Your task to perform on an android device: Add razer naga to the cart on newegg.com Image 0: 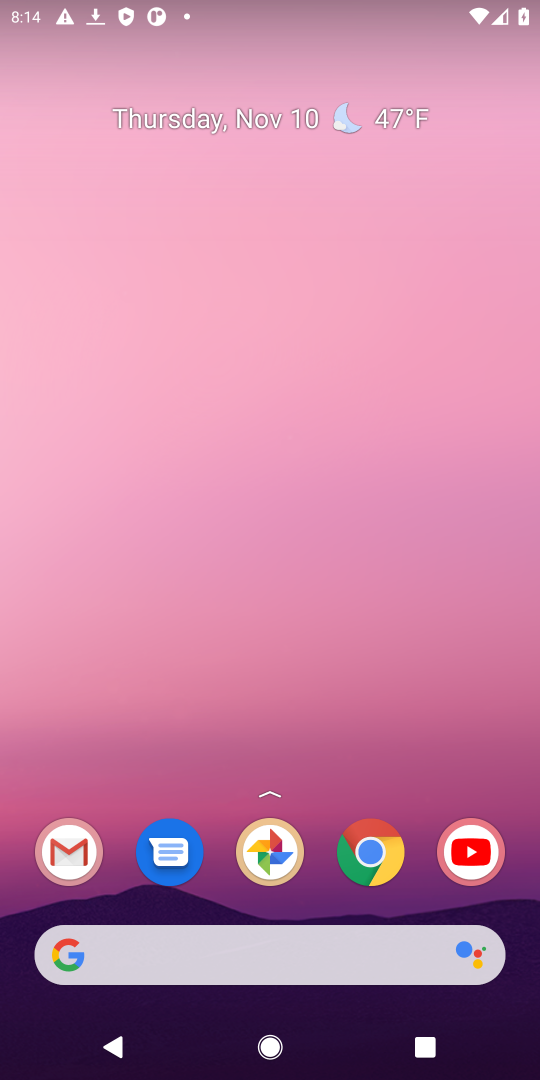
Step 0: click (353, 866)
Your task to perform on an android device: Add razer naga to the cart on newegg.com Image 1: 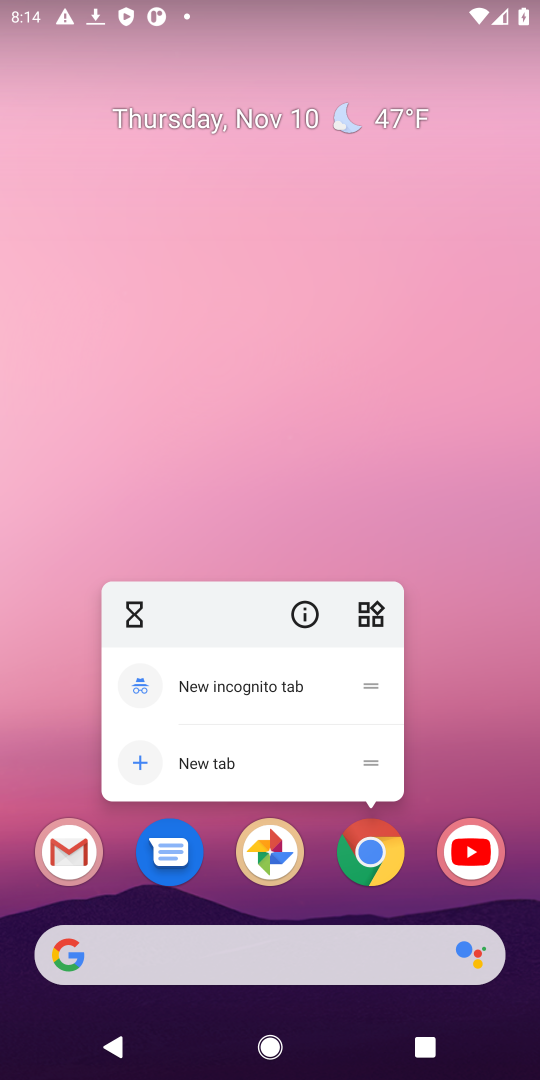
Step 1: click (353, 866)
Your task to perform on an android device: Add razer naga to the cart on newegg.com Image 2: 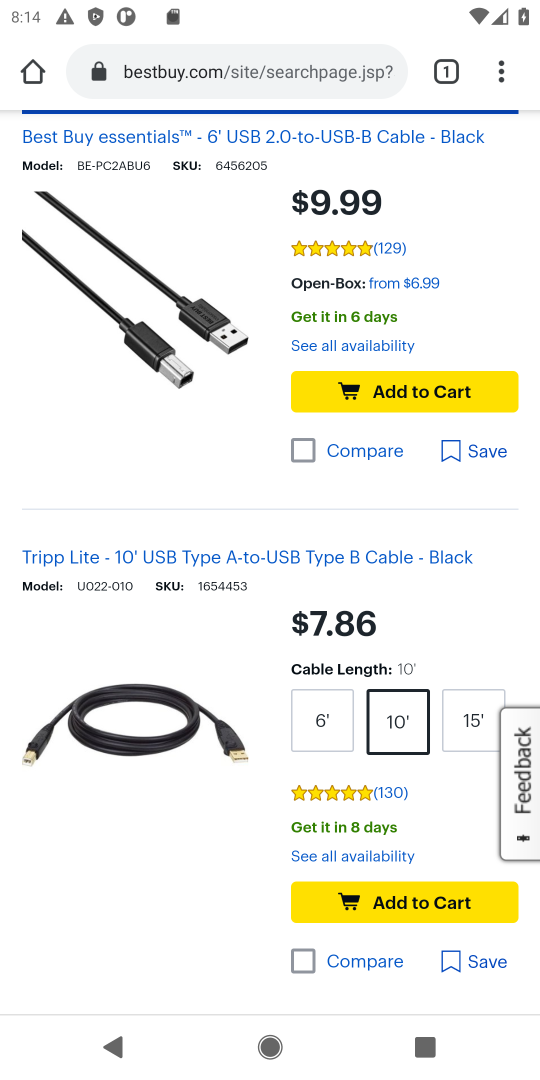
Step 2: click (276, 66)
Your task to perform on an android device: Add razer naga to the cart on newegg.com Image 3: 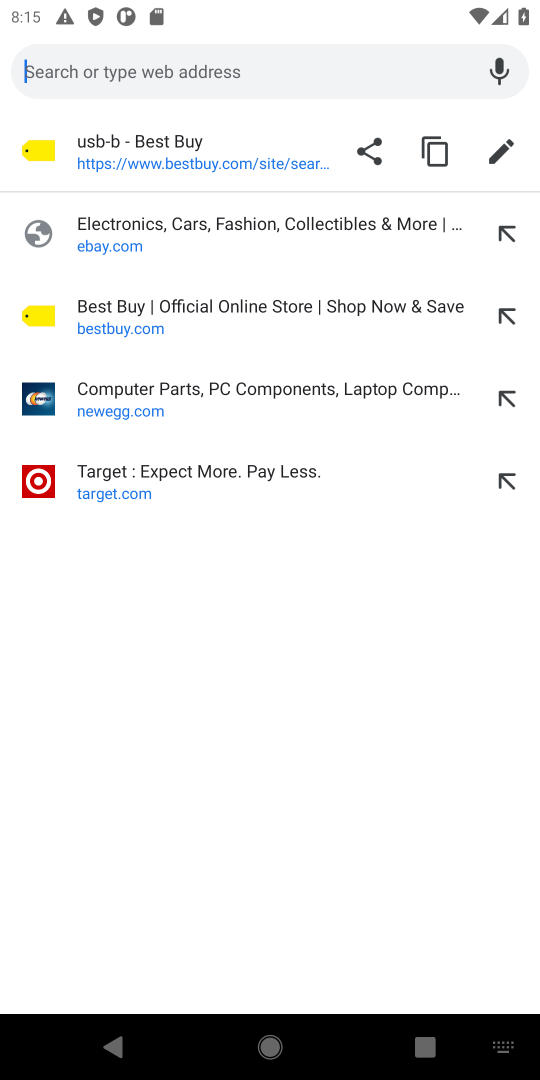
Step 3: type "newegg.com"
Your task to perform on an android device: Add razer naga to the cart on newegg.com Image 4: 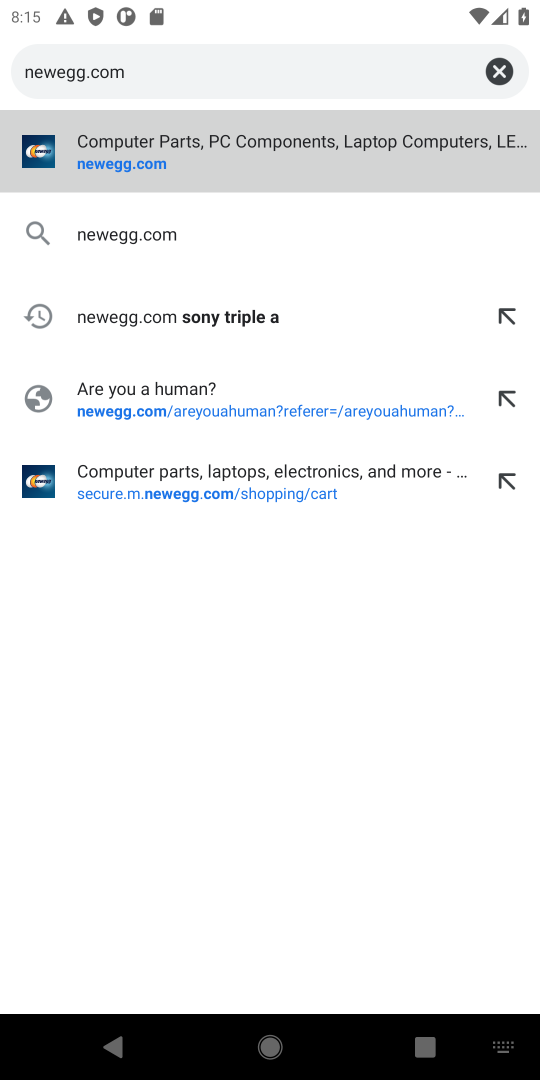
Step 4: press enter
Your task to perform on an android device: Add razer naga to the cart on newegg.com Image 5: 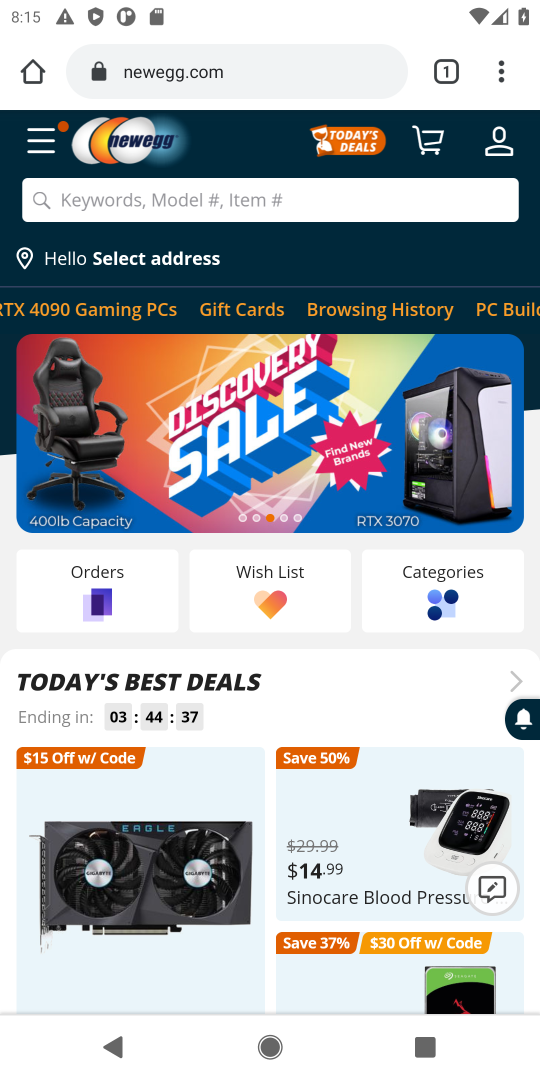
Step 5: click (287, 190)
Your task to perform on an android device: Add razer naga to the cart on newegg.com Image 6: 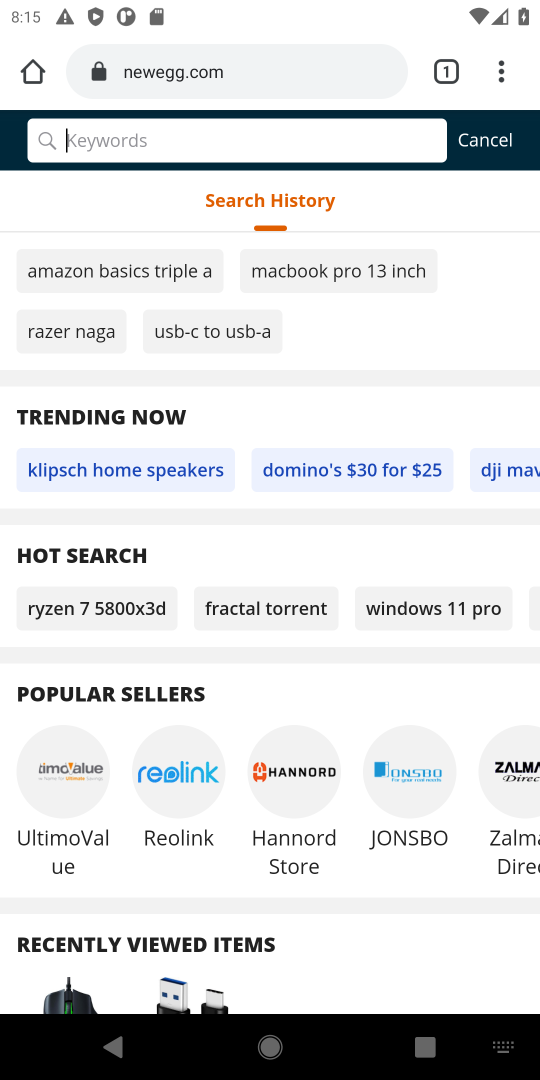
Step 6: press enter
Your task to perform on an android device: Add razer naga to the cart on newegg.com Image 7: 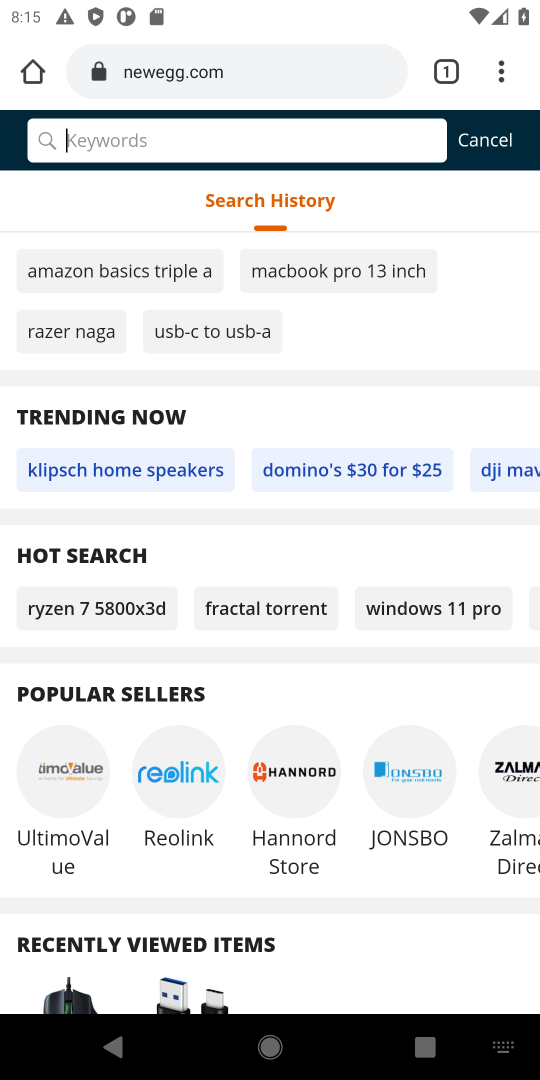
Step 7: type "razer naga"
Your task to perform on an android device: Add razer naga to the cart on newegg.com Image 8: 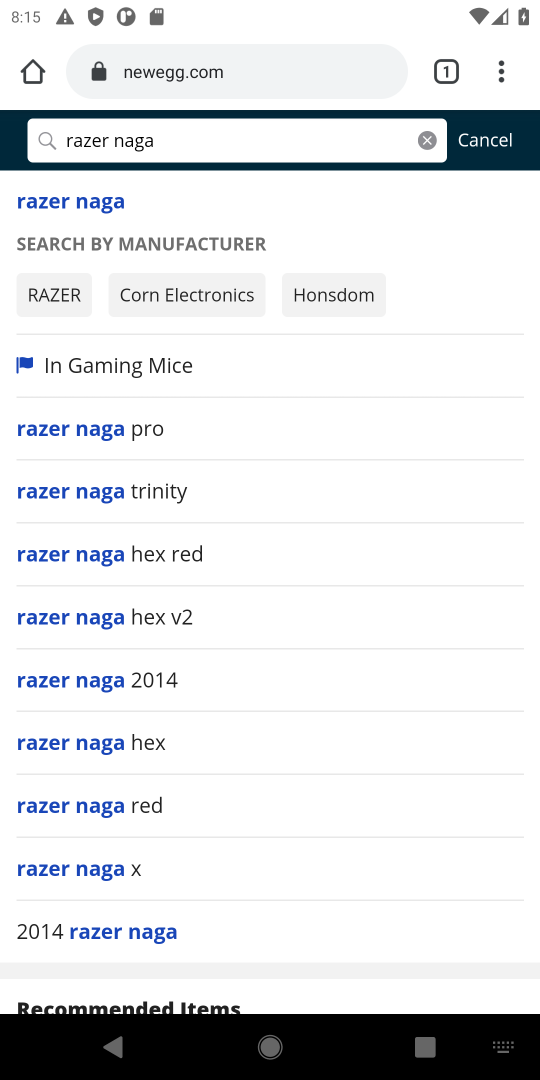
Step 8: press enter
Your task to perform on an android device: Add razer naga to the cart on newegg.com Image 9: 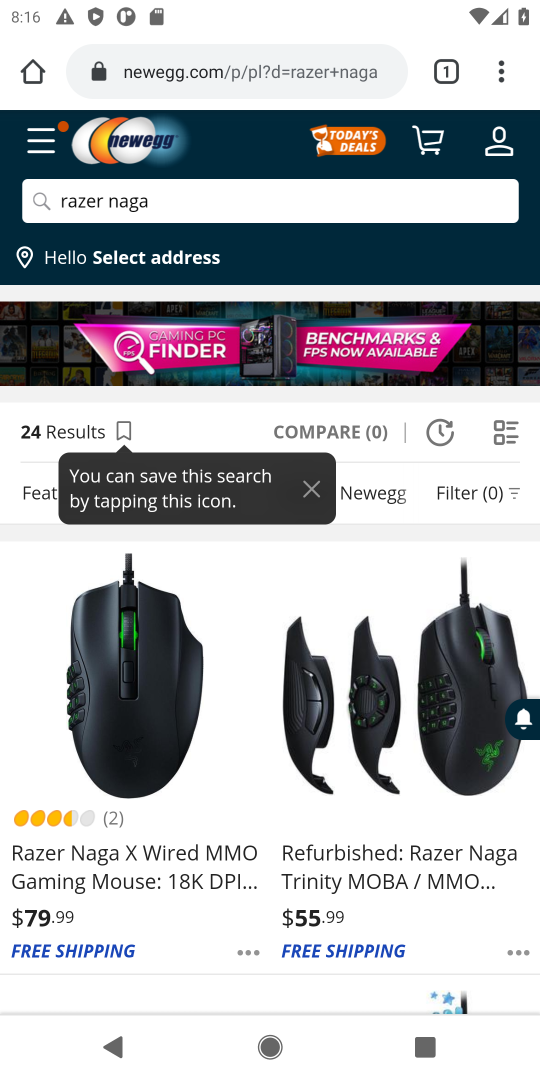
Step 9: click (58, 873)
Your task to perform on an android device: Add razer naga to the cart on newegg.com Image 10: 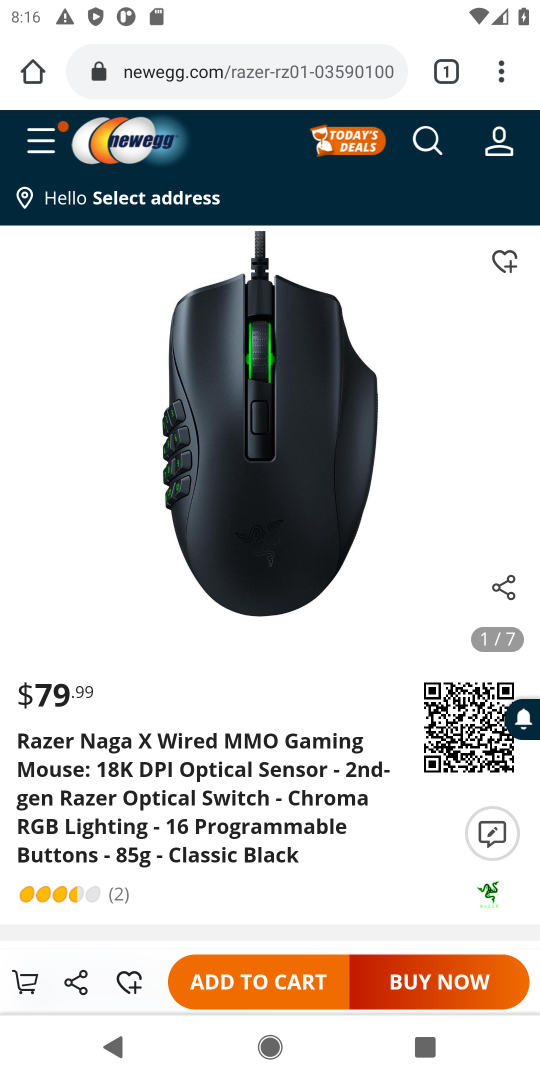
Step 10: click (281, 981)
Your task to perform on an android device: Add razer naga to the cart on newegg.com Image 11: 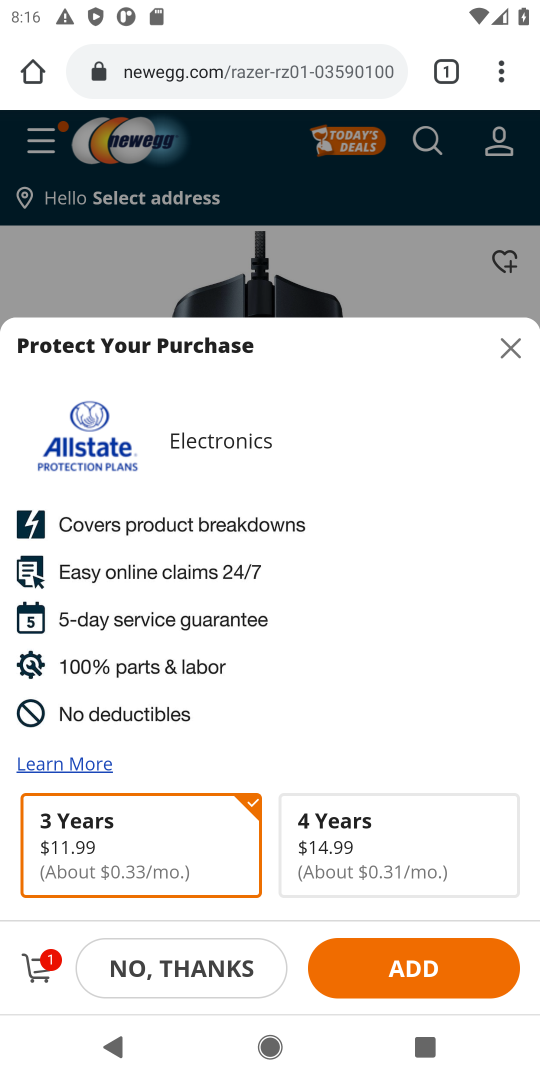
Step 11: click (36, 967)
Your task to perform on an android device: Add razer naga to the cart on newegg.com Image 12: 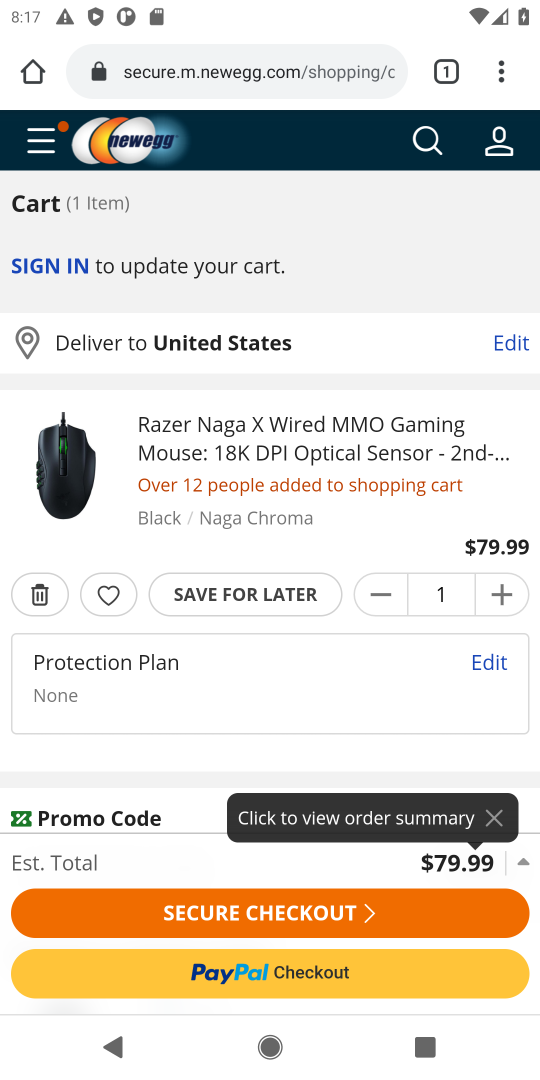
Step 12: task complete